Your task to perform on an android device: check android version Image 0: 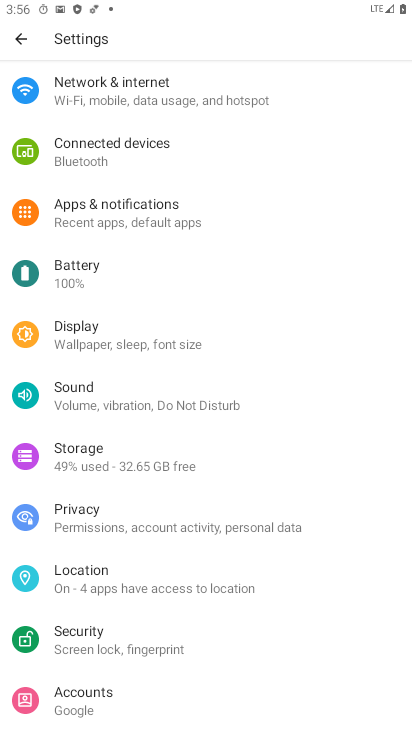
Step 0: drag from (212, 626) to (238, 252)
Your task to perform on an android device: check android version Image 1: 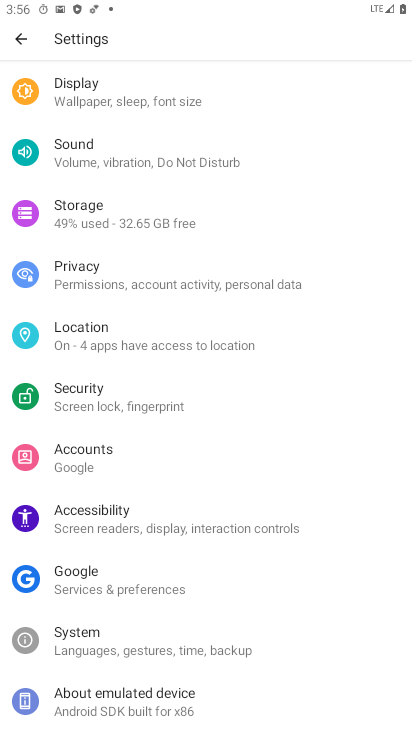
Step 1: drag from (129, 688) to (145, 292)
Your task to perform on an android device: check android version Image 2: 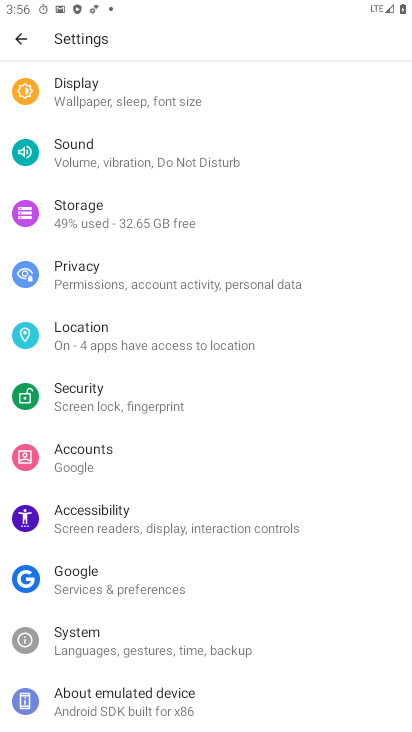
Step 2: click (128, 690)
Your task to perform on an android device: check android version Image 3: 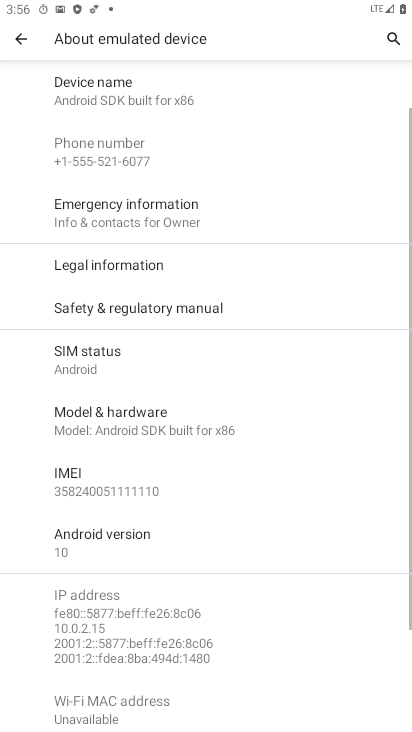
Step 3: click (81, 542)
Your task to perform on an android device: check android version Image 4: 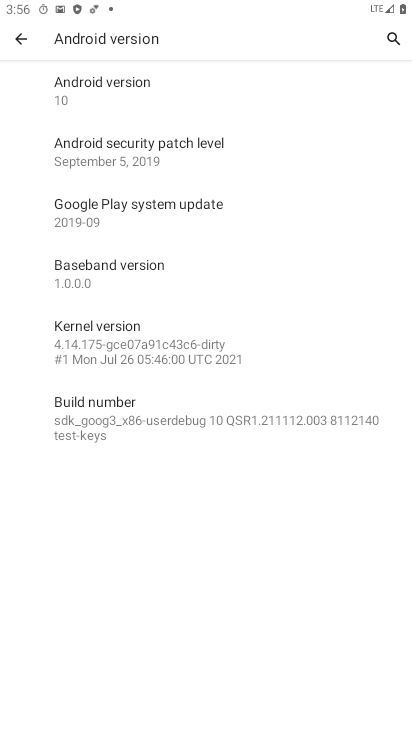
Step 4: task complete